Your task to perform on an android device: Do I have any events tomorrow? Image 0: 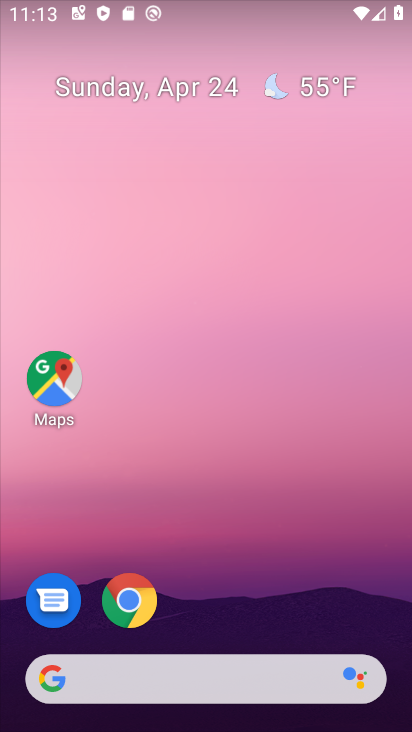
Step 0: click (198, 78)
Your task to perform on an android device: Do I have any events tomorrow? Image 1: 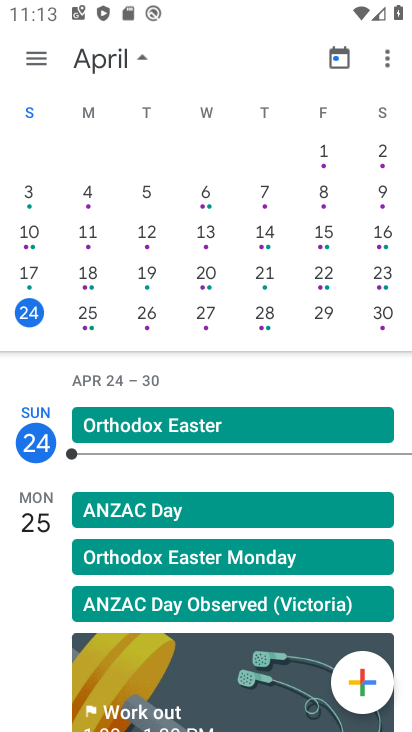
Step 1: drag from (41, 692) to (116, 228)
Your task to perform on an android device: Do I have any events tomorrow? Image 2: 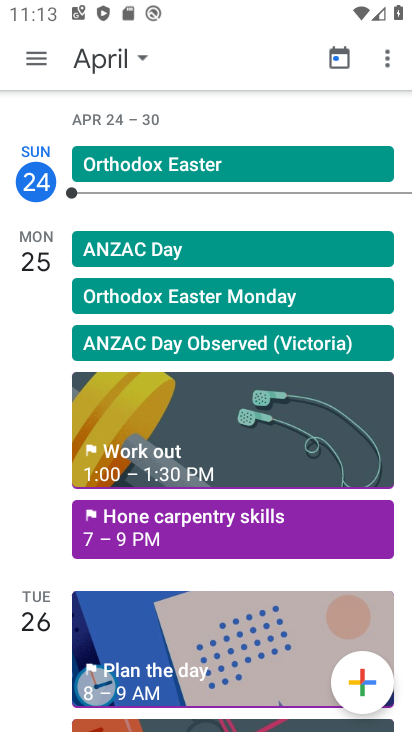
Step 2: click (227, 535)
Your task to perform on an android device: Do I have any events tomorrow? Image 3: 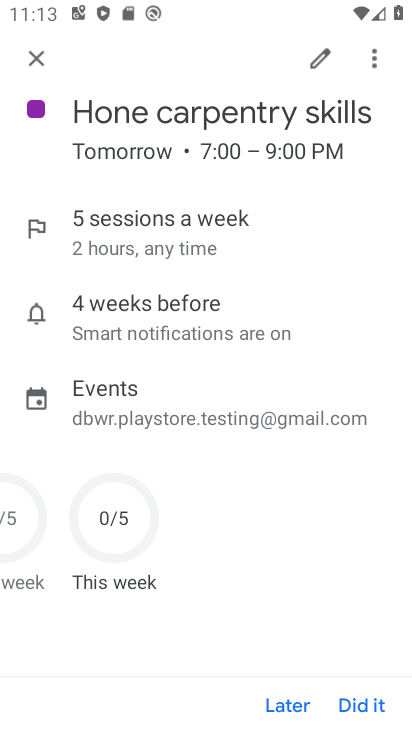
Step 3: task complete